Your task to perform on an android device: What's the weather today? Image 0: 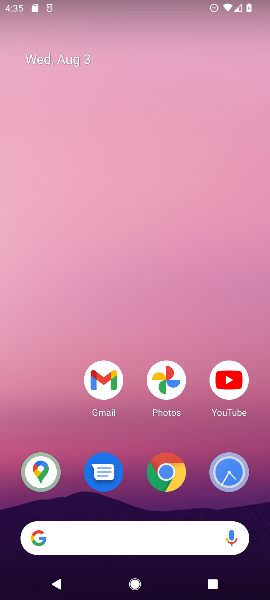
Step 0: drag from (254, 508) to (91, 96)
Your task to perform on an android device: What's the weather today? Image 1: 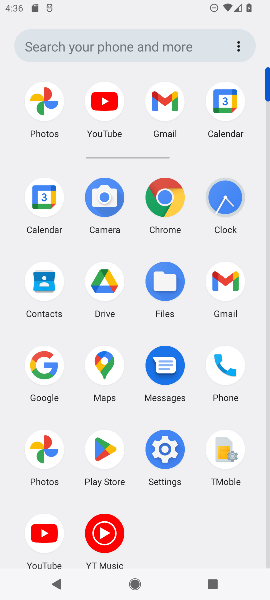
Step 1: click (37, 364)
Your task to perform on an android device: What's the weather today? Image 2: 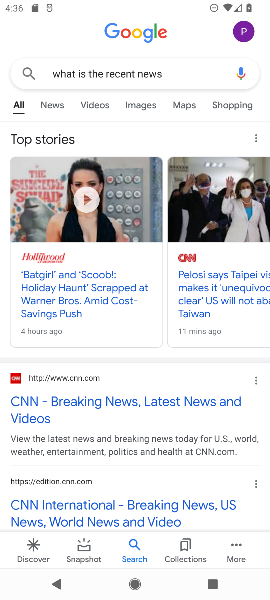
Step 2: press back button
Your task to perform on an android device: What's the weather today? Image 3: 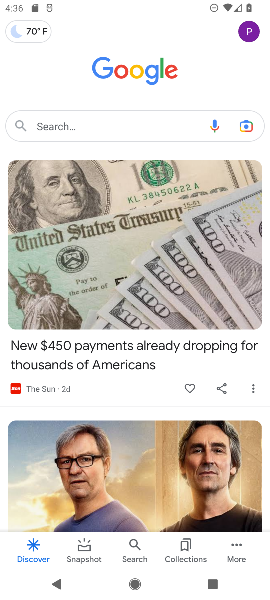
Step 3: click (83, 123)
Your task to perform on an android device: What's the weather today? Image 4: 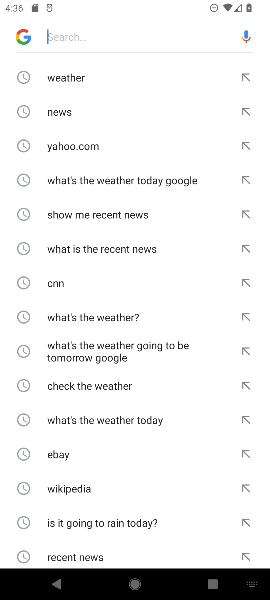
Step 4: drag from (233, 592) to (117, 593)
Your task to perform on an android device: What's the weather today? Image 5: 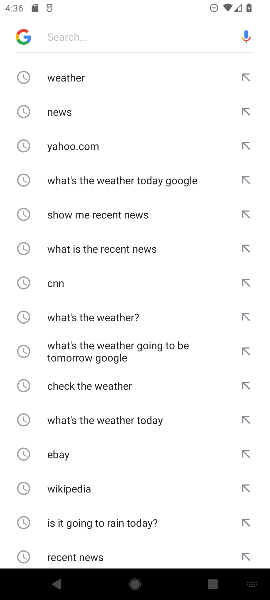
Step 5: type "What's the weather today?"
Your task to perform on an android device: What's the weather today? Image 6: 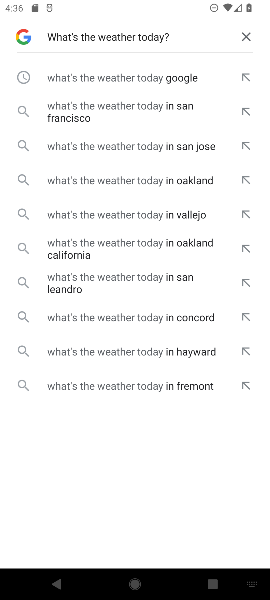
Step 6: click (141, 80)
Your task to perform on an android device: What's the weather today? Image 7: 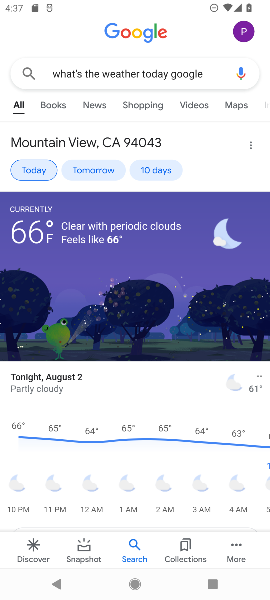
Step 7: task complete